Your task to perform on an android device: Go to Maps Image 0: 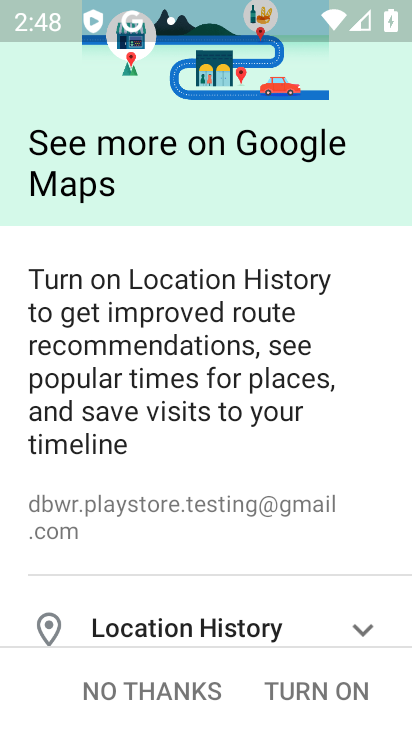
Step 0: press home button
Your task to perform on an android device: Go to Maps Image 1: 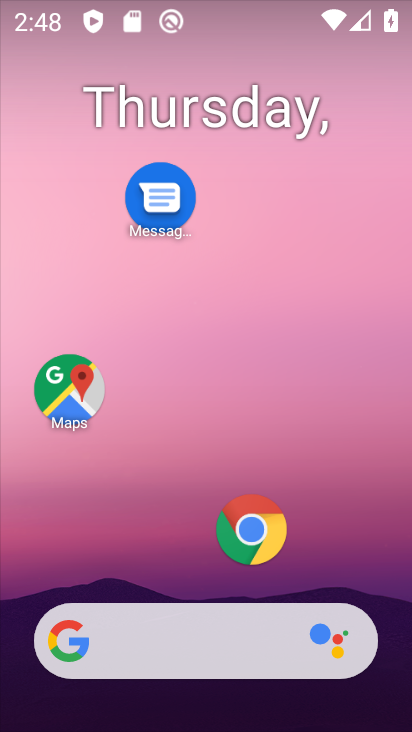
Step 1: click (67, 384)
Your task to perform on an android device: Go to Maps Image 2: 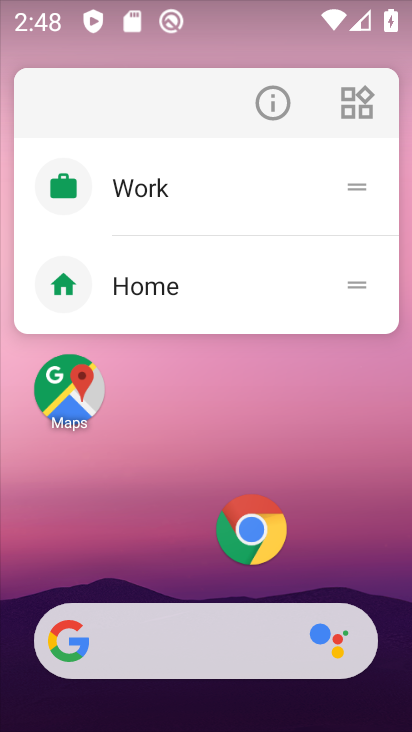
Step 2: click (68, 396)
Your task to perform on an android device: Go to Maps Image 3: 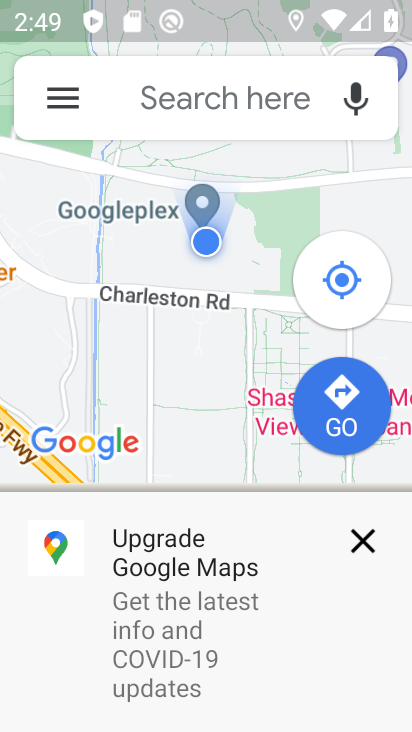
Step 3: task complete